Your task to perform on an android device: open a bookmark in the chrome app Image 0: 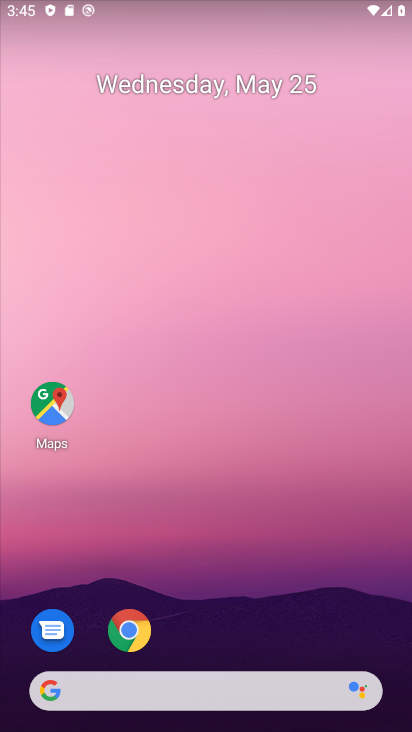
Step 0: drag from (132, 231) to (115, 2)
Your task to perform on an android device: open a bookmark in the chrome app Image 1: 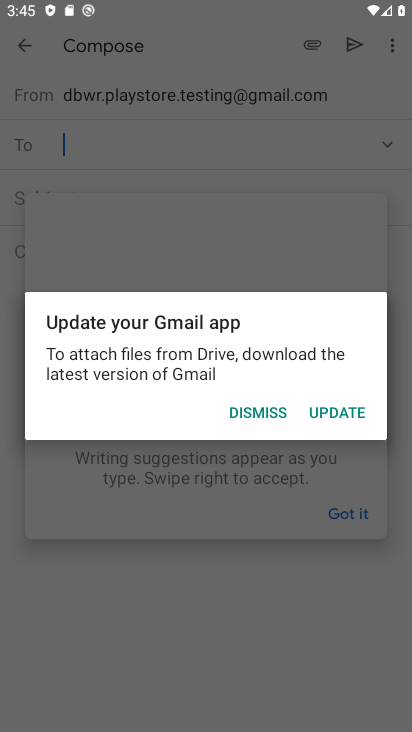
Step 1: drag from (286, 575) to (192, 88)
Your task to perform on an android device: open a bookmark in the chrome app Image 2: 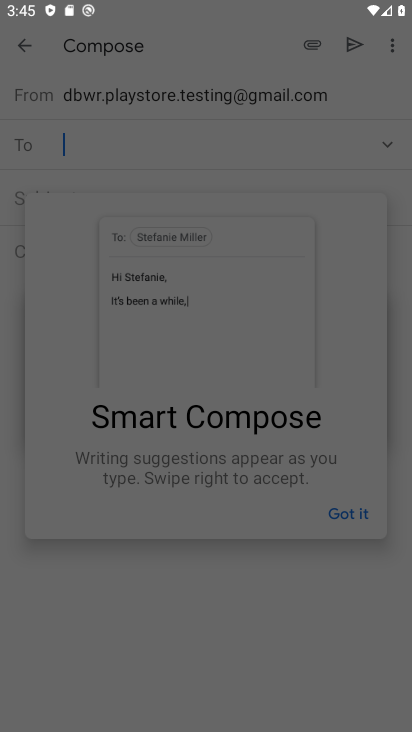
Step 2: click (261, 412)
Your task to perform on an android device: open a bookmark in the chrome app Image 3: 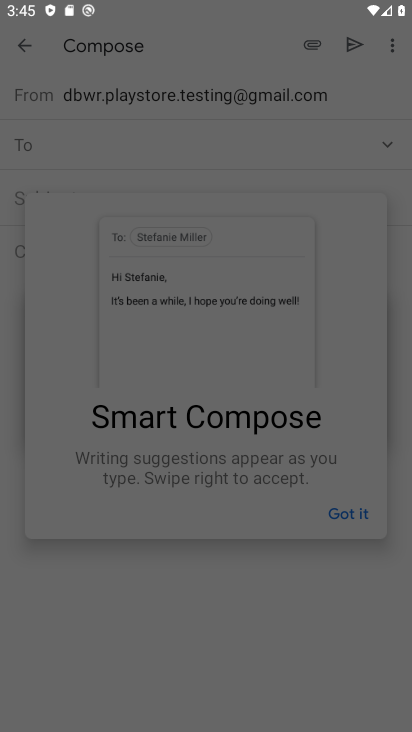
Step 3: press back button
Your task to perform on an android device: open a bookmark in the chrome app Image 4: 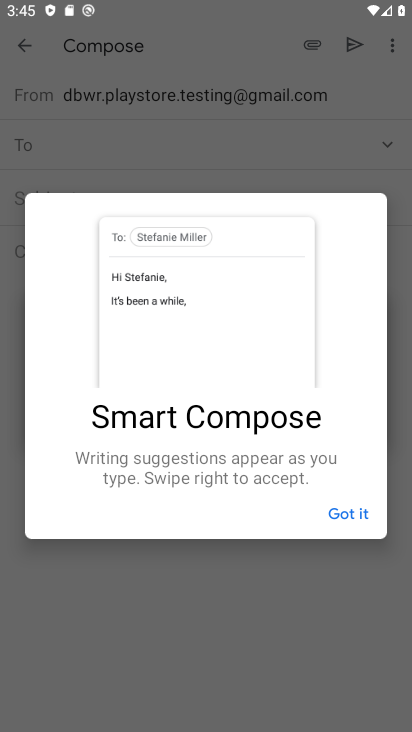
Step 4: click (356, 518)
Your task to perform on an android device: open a bookmark in the chrome app Image 5: 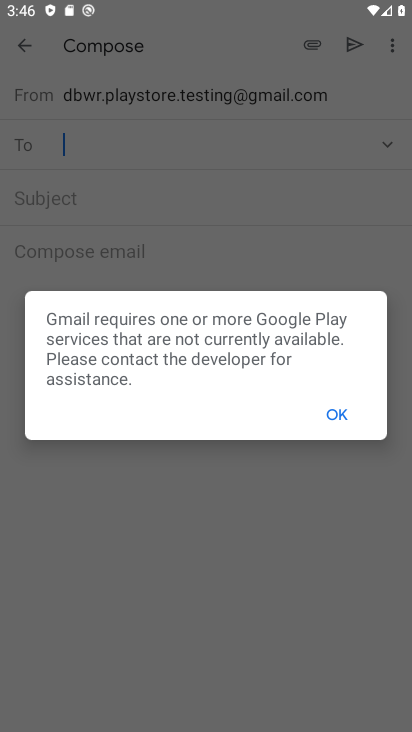
Step 5: click (333, 411)
Your task to perform on an android device: open a bookmark in the chrome app Image 6: 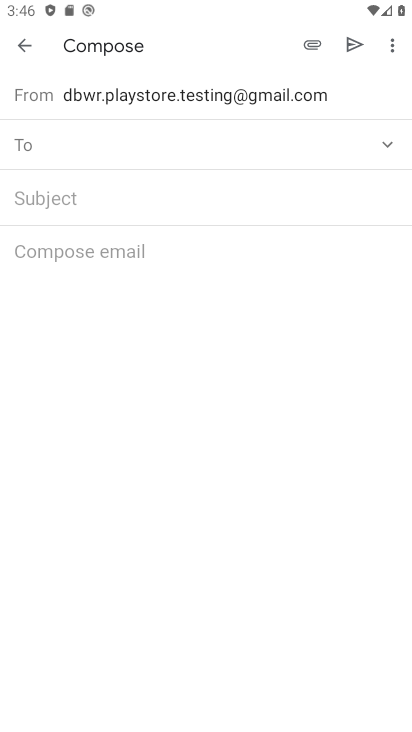
Step 6: click (22, 44)
Your task to perform on an android device: open a bookmark in the chrome app Image 7: 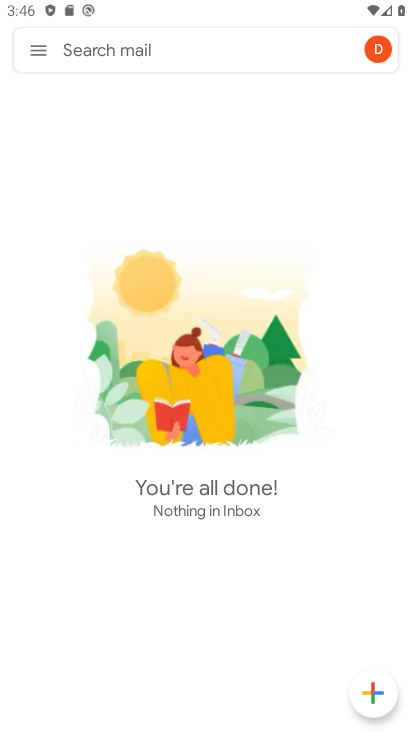
Step 7: press home button
Your task to perform on an android device: open a bookmark in the chrome app Image 8: 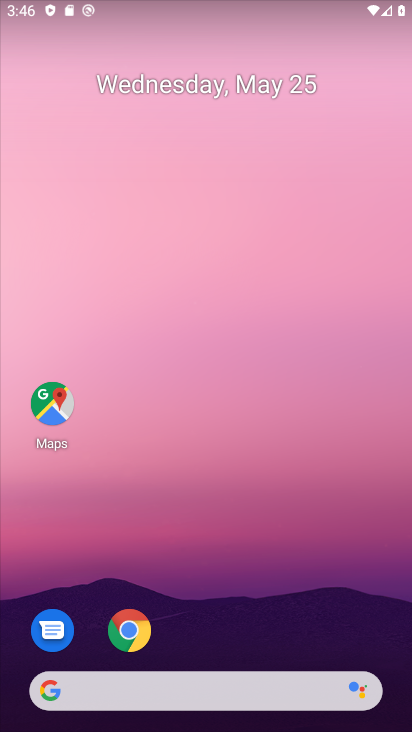
Step 8: drag from (241, 571) to (130, 202)
Your task to perform on an android device: open a bookmark in the chrome app Image 9: 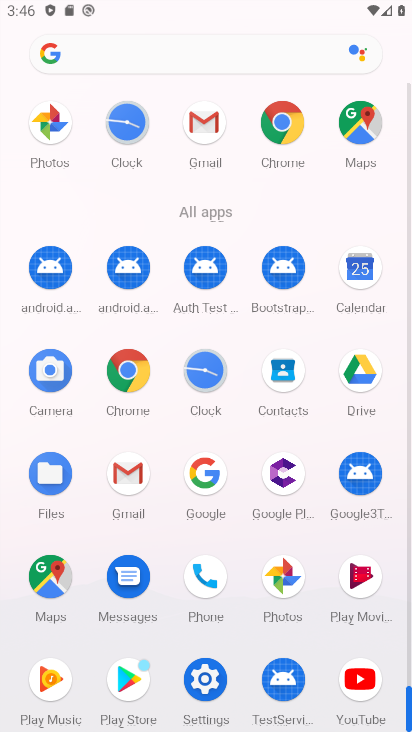
Step 9: click (275, 122)
Your task to perform on an android device: open a bookmark in the chrome app Image 10: 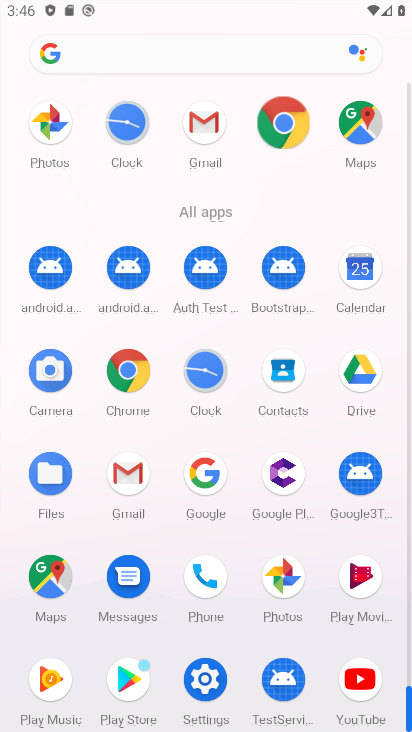
Step 10: click (276, 121)
Your task to perform on an android device: open a bookmark in the chrome app Image 11: 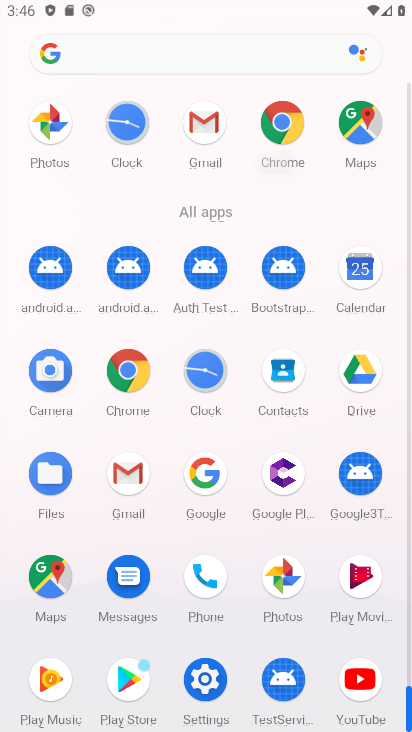
Step 11: click (276, 121)
Your task to perform on an android device: open a bookmark in the chrome app Image 12: 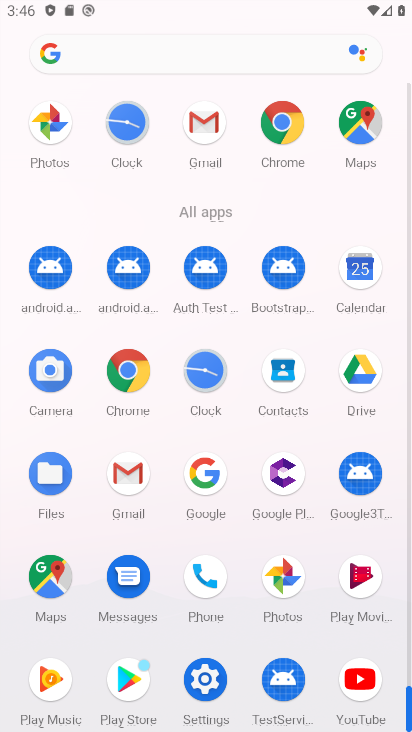
Step 12: click (276, 121)
Your task to perform on an android device: open a bookmark in the chrome app Image 13: 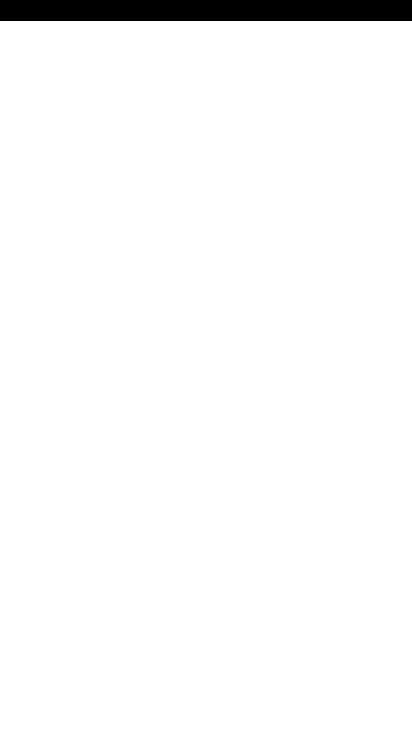
Step 13: click (278, 121)
Your task to perform on an android device: open a bookmark in the chrome app Image 14: 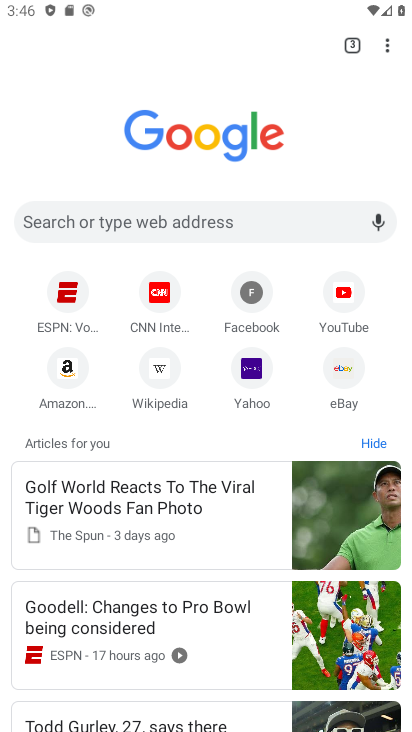
Step 14: task complete